Your task to perform on an android device: set the timer Image 0: 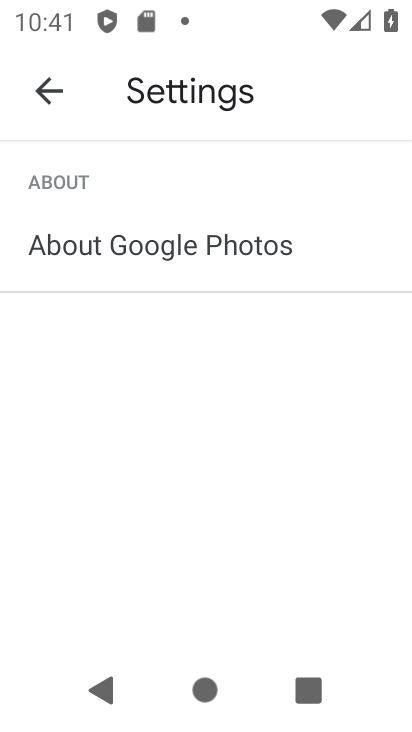
Step 0: press home button
Your task to perform on an android device: set the timer Image 1: 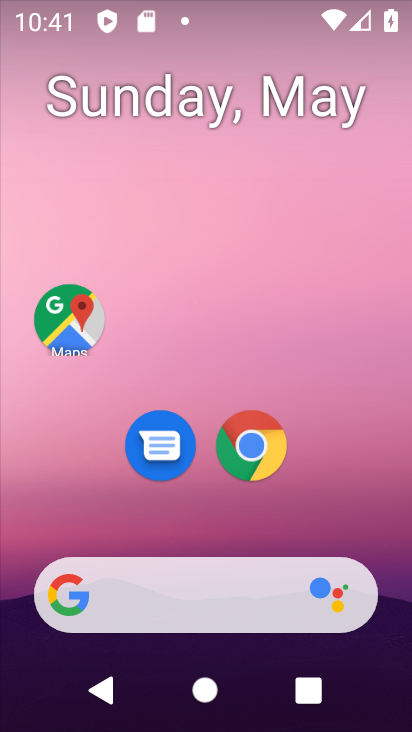
Step 1: drag from (193, 561) to (196, 141)
Your task to perform on an android device: set the timer Image 2: 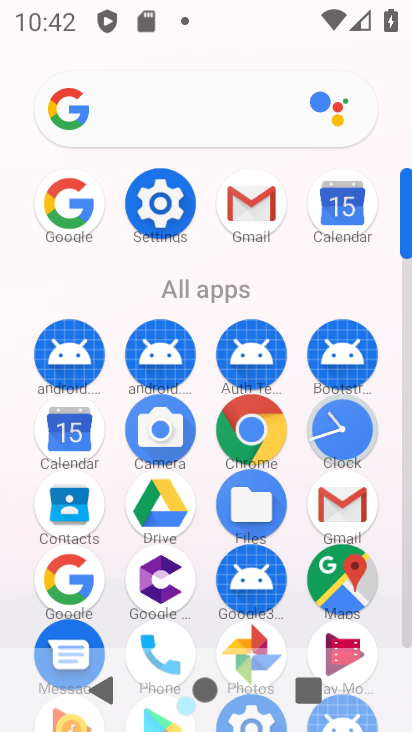
Step 2: drag from (205, 541) to (247, 218)
Your task to perform on an android device: set the timer Image 3: 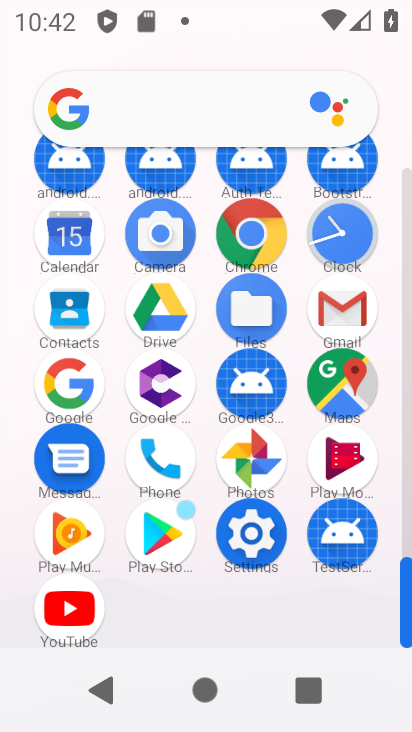
Step 3: drag from (199, 327) to (197, 525)
Your task to perform on an android device: set the timer Image 4: 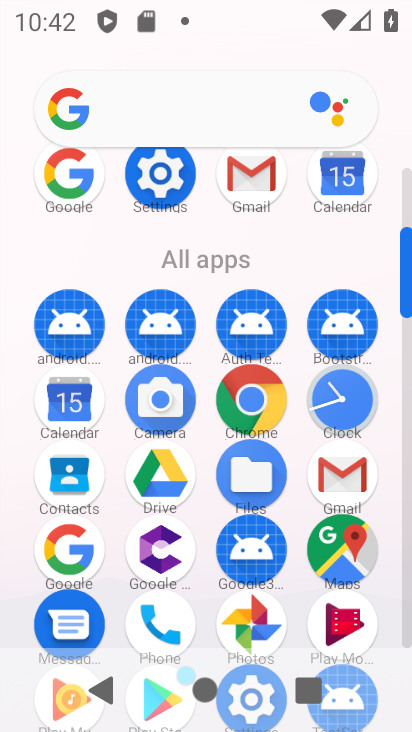
Step 4: click (346, 414)
Your task to perform on an android device: set the timer Image 5: 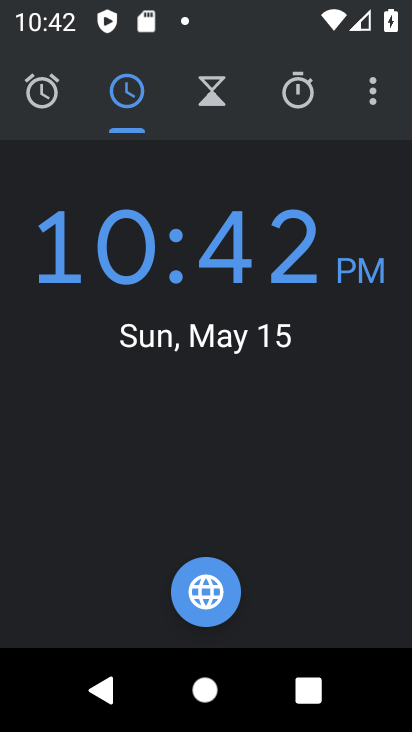
Step 5: click (43, 92)
Your task to perform on an android device: set the timer Image 6: 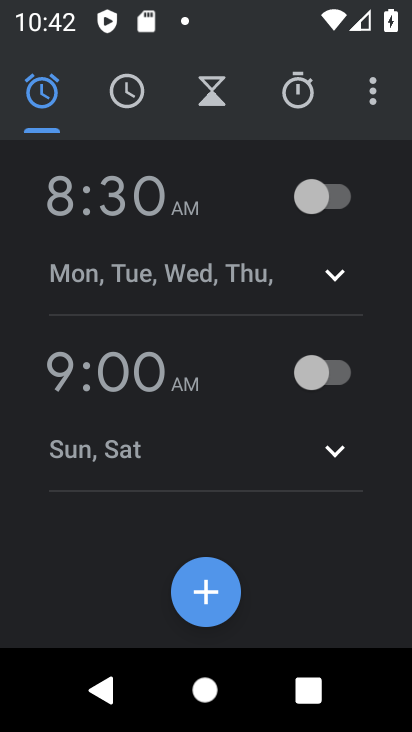
Step 6: click (218, 85)
Your task to perform on an android device: set the timer Image 7: 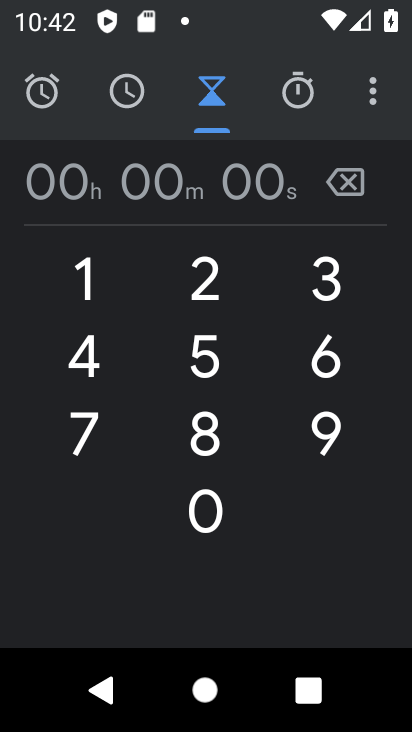
Step 7: click (192, 280)
Your task to perform on an android device: set the timer Image 8: 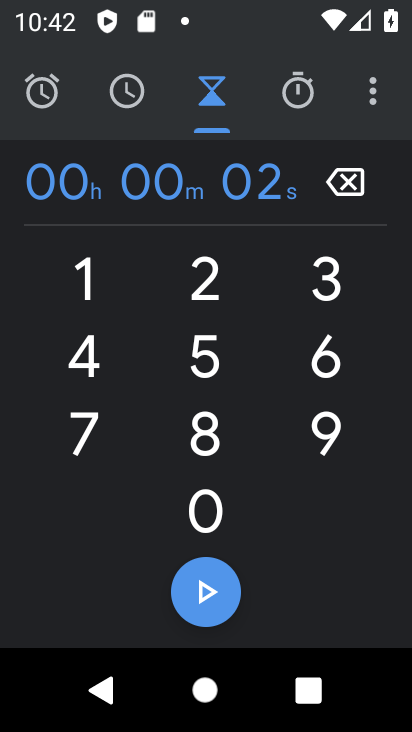
Step 8: click (208, 346)
Your task to perform on an android device: set the timer Image 9: 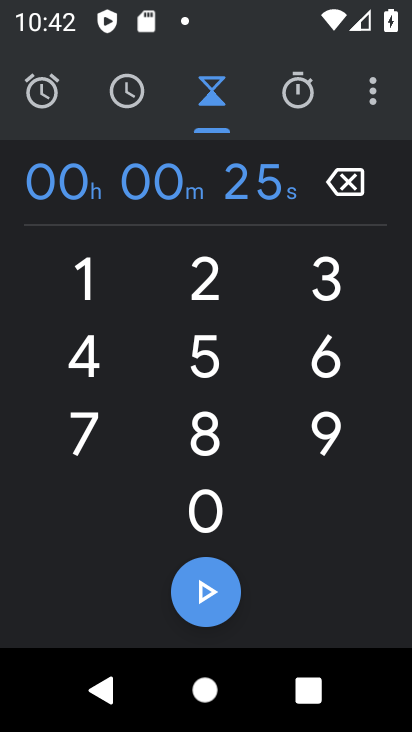
Step 9: click (208, 346)
Your task to perform on an android device: set the timer Image 10: 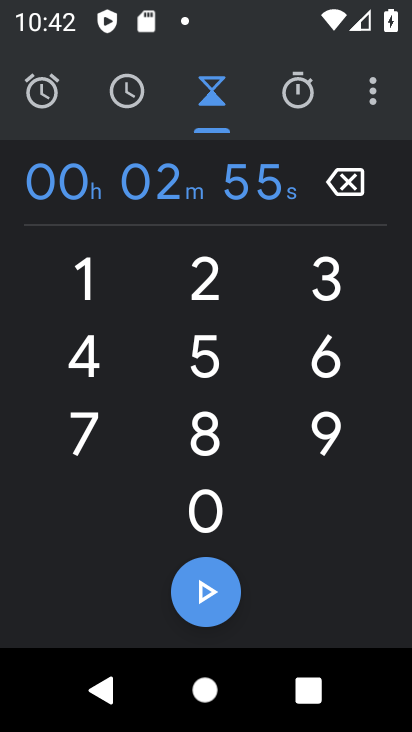
Step 10: task complete